Your task to perform on an android device: add a contact Image 0: 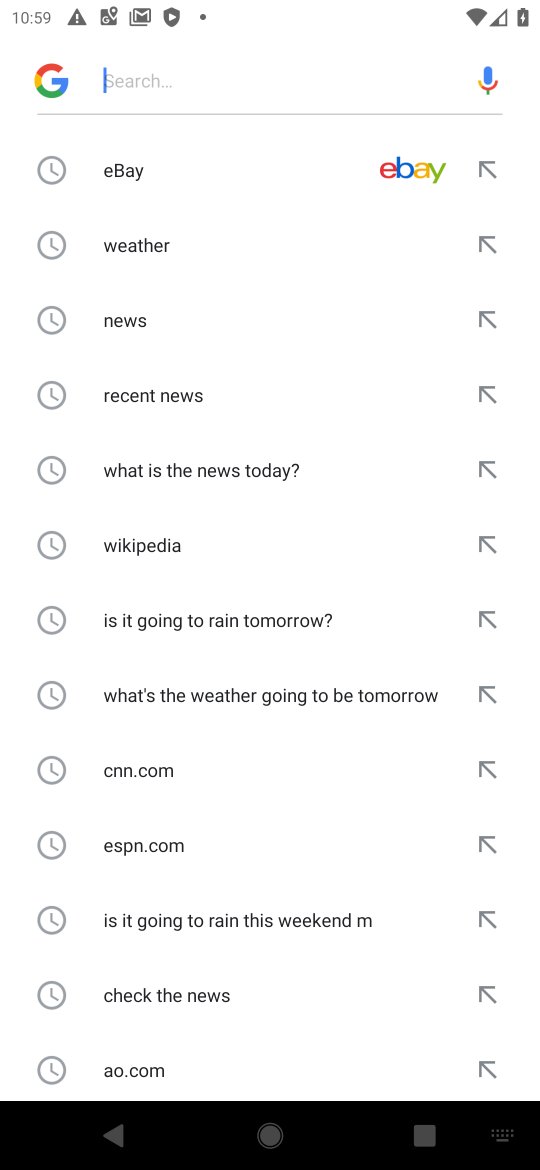
Step 0: press home button
Your task to perform on an android device: add a contact Image 1: 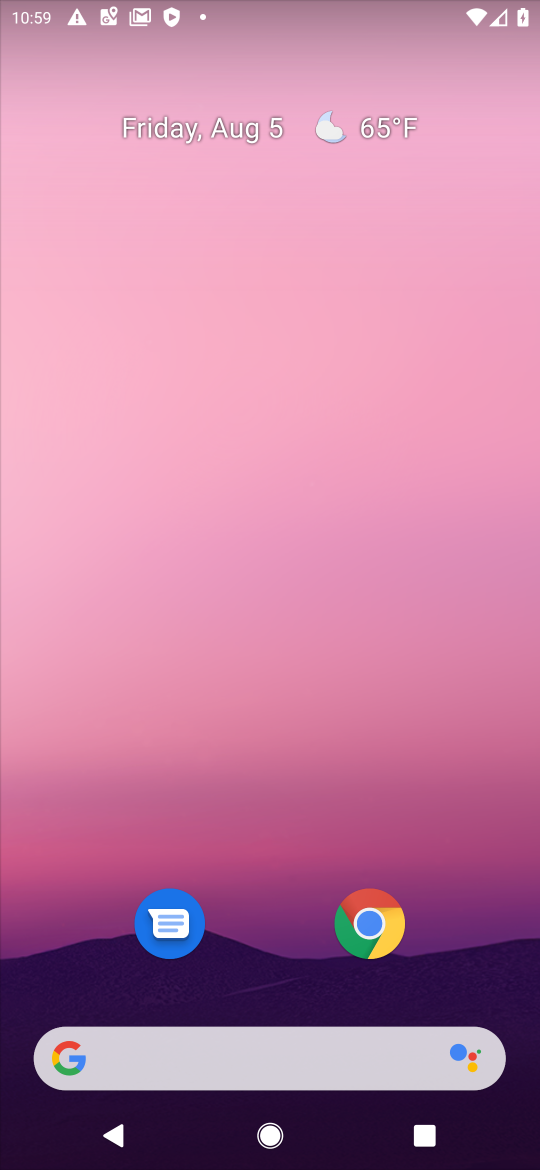
Step 1: drag from (418, 1041) to (399, 59)
Your task to perform on an android device: add a contact Image 2: 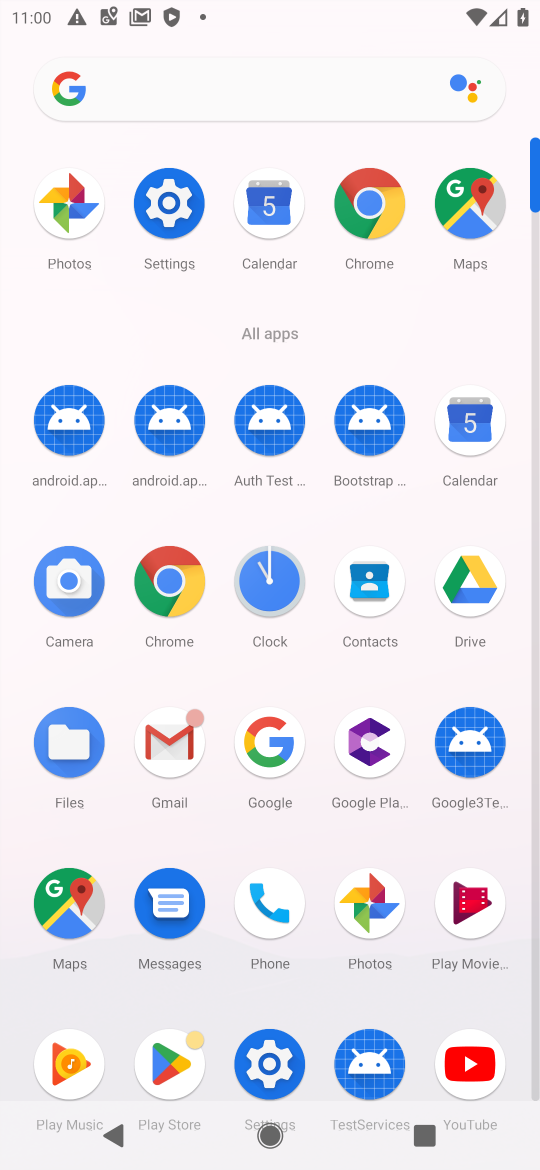
Step 2: click (367, 575)
Your task to perform on an android device: add a contact Image 3: 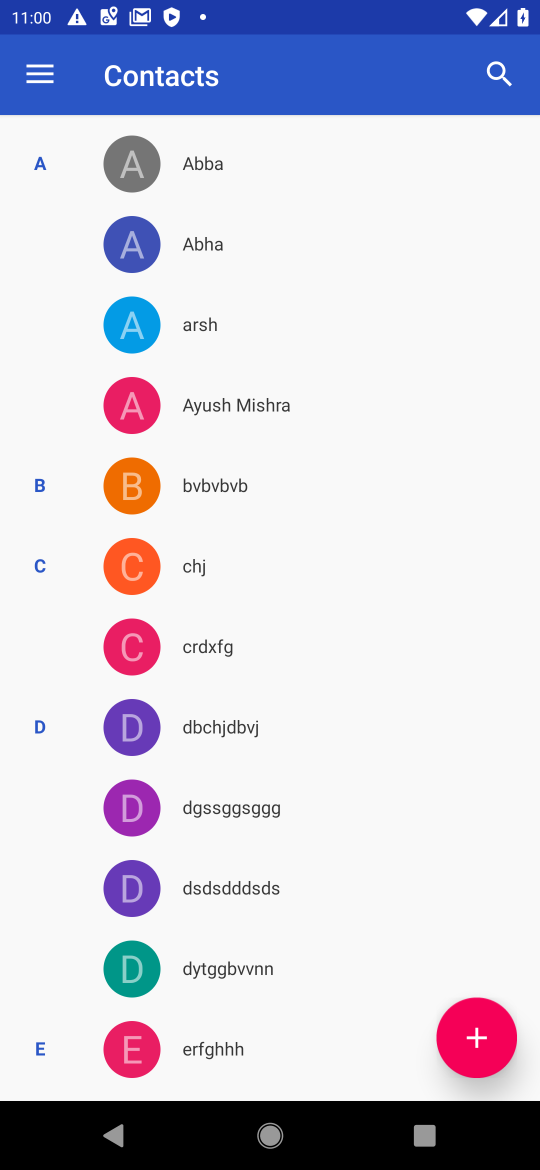
Step 3: click (488, 1053)
Your task to perform on an android device: add a contact Image 4: 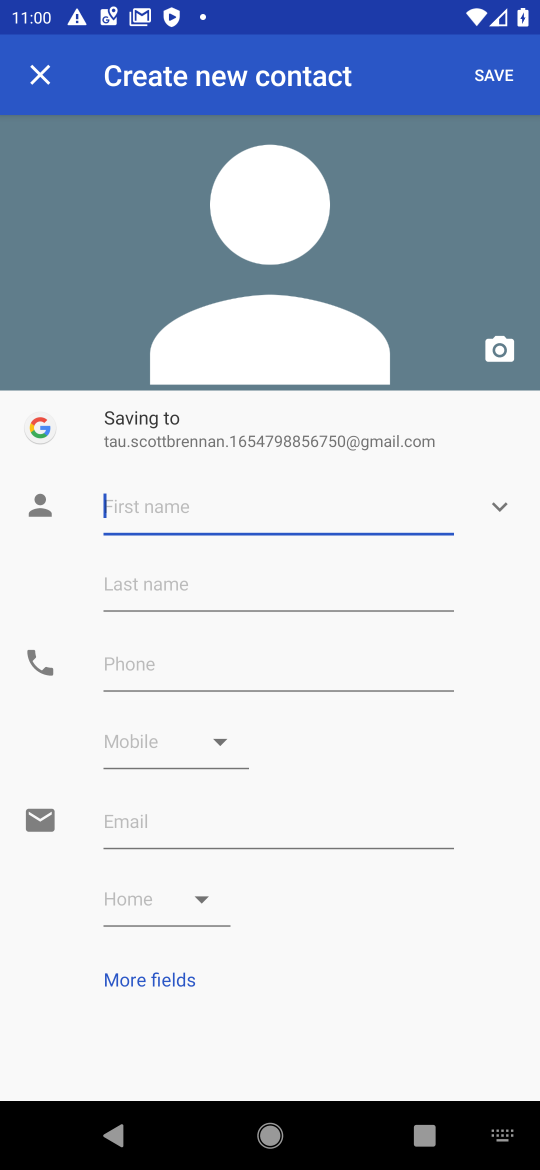
Step 4: type "nmcmmn"
Your task to perform on an android device: add a contact Image 5: 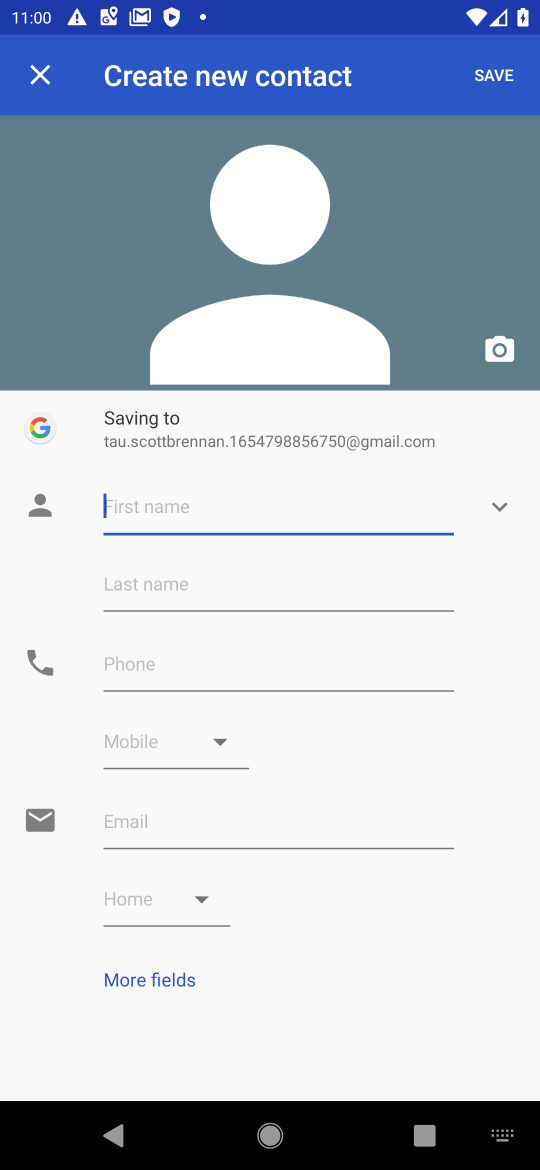
Step 5: click (197, 663)
Your task to perform on an android device: add a contact Image 6: 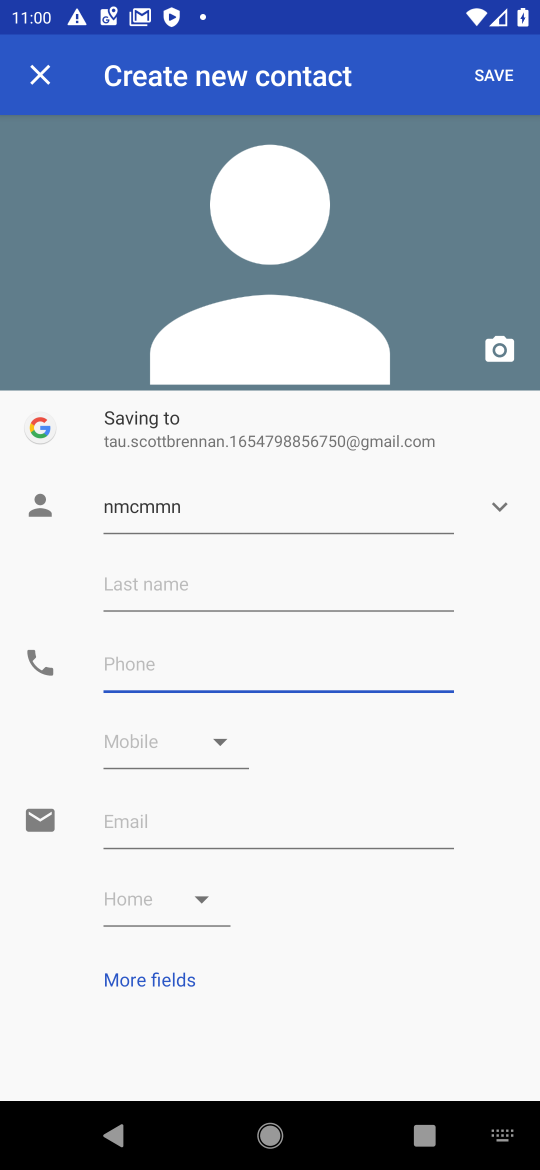
Step 6: type "85756566566"
Your task to perform on an android device: add a contact Image 7: 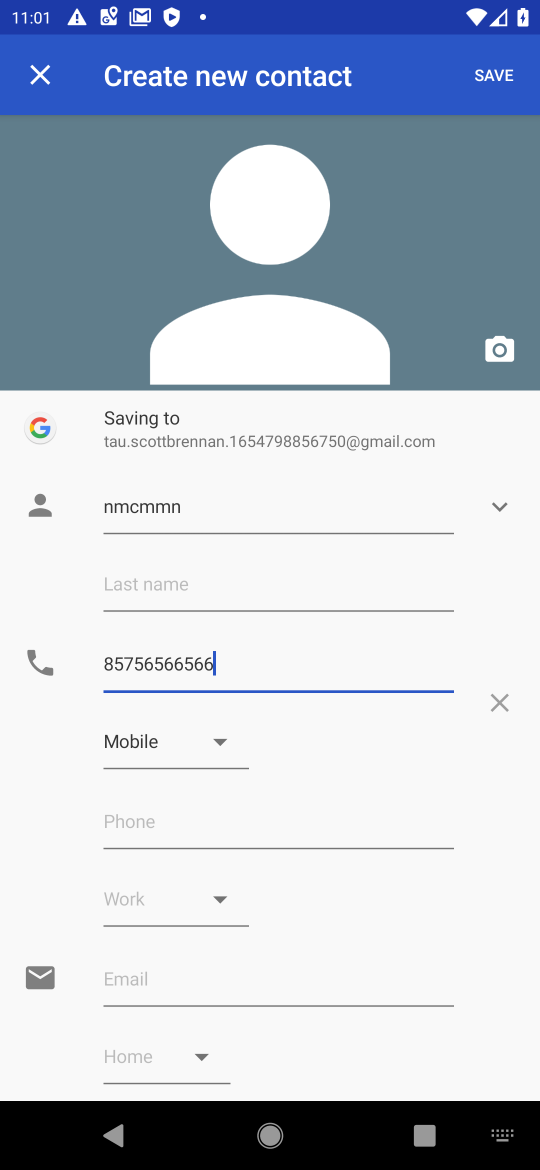
Step 7: click (493, 68)
Your task to perform on an android device: add a contact Image 8: 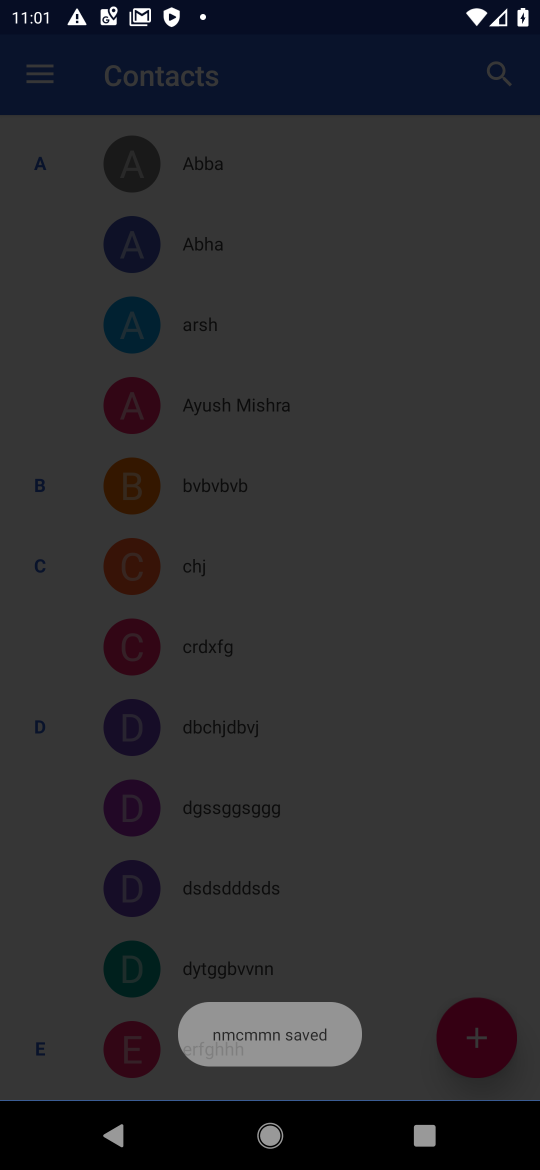
Step 8: task complete